Your task to perform on an android device: change alarm snooze length Image 0: 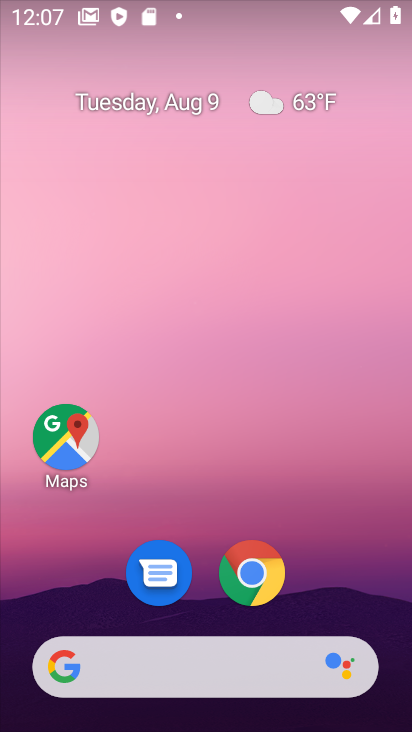
Step 0: drag from (210, 638) to (271, 201)
Your task to perform on an android device: change alarm snooze length Image 1: 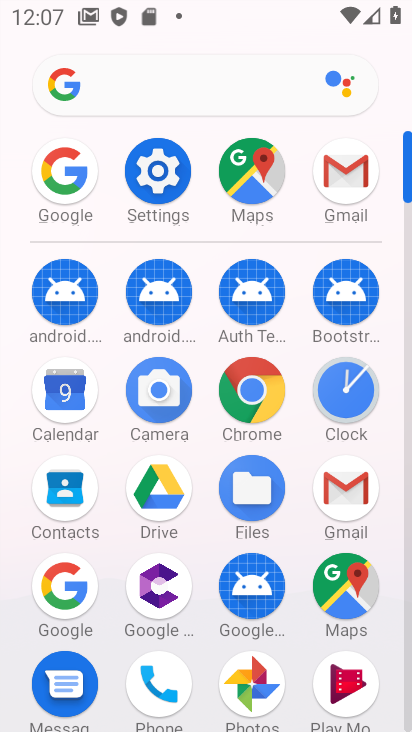
Step 1: click (337, 388)
Your task to perform on an android device: change alarm snooze length Image 2: 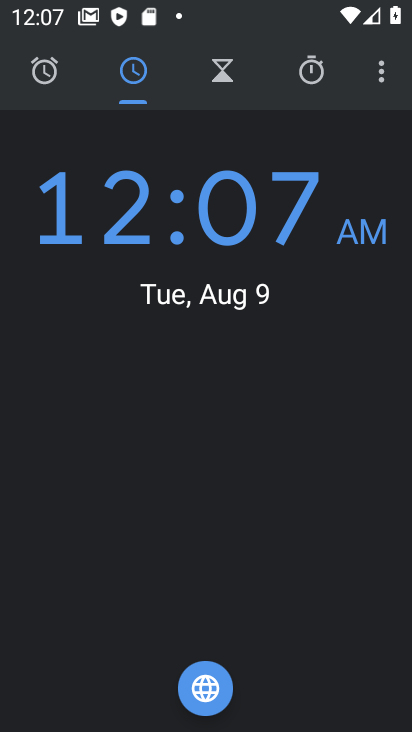
Step 2: click (384, 77)
Your task to perform on an android device: change alarm snooze length Image 3: 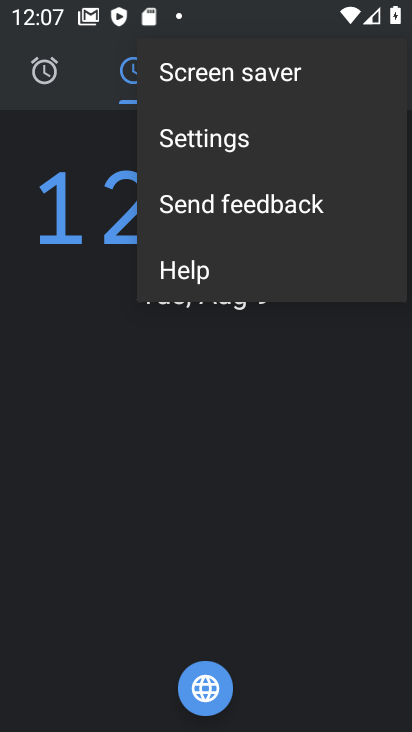
Step 3: click (192, 142)
Your task to perform on an android device: change alarm snooze length Image 4: 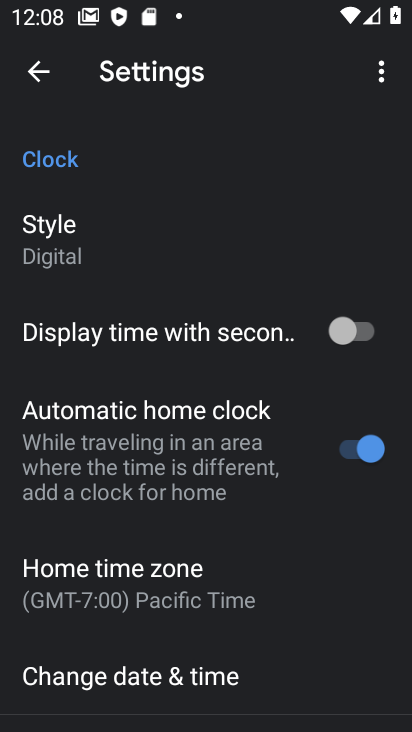
Step 4: drag from (107, 634) to (107, 352)
Your task to perform on an android device: change alarm snooze length Image 5: 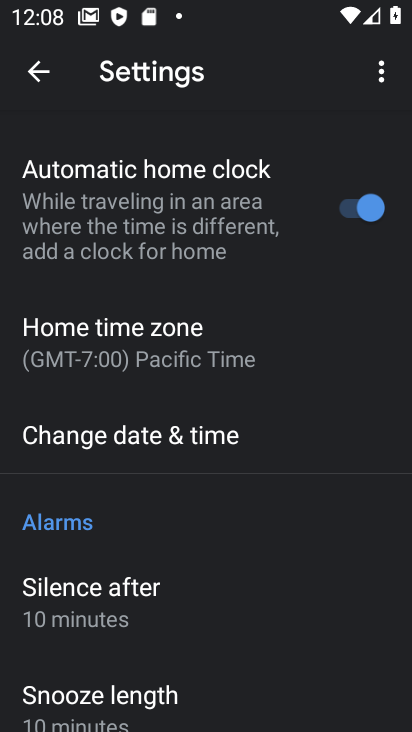
Step 5: drag from (94, 663) to (107, 430)
Your task to perform on an android device: change alarm snooze length Image 6: 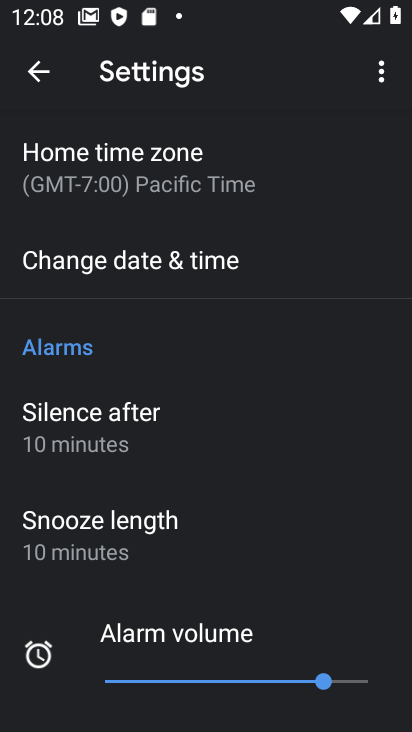
Step 6: click (96, 541)
Your task to perform on an android device: change alarm snooze length Image 7: 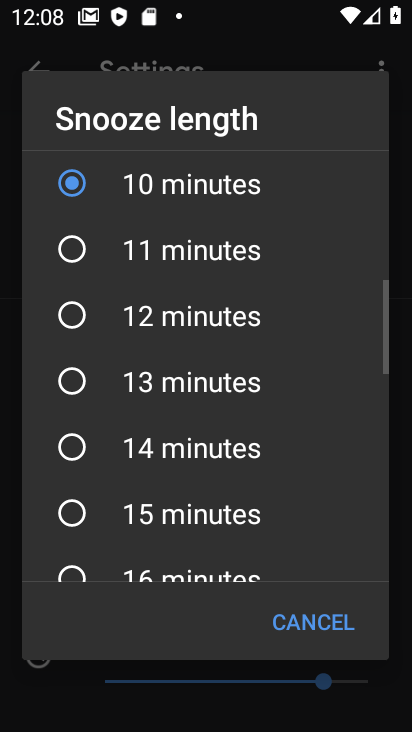
Step 7: click (159, 377)
Your task to perform on an android device: change alarm snooze length Image 8: 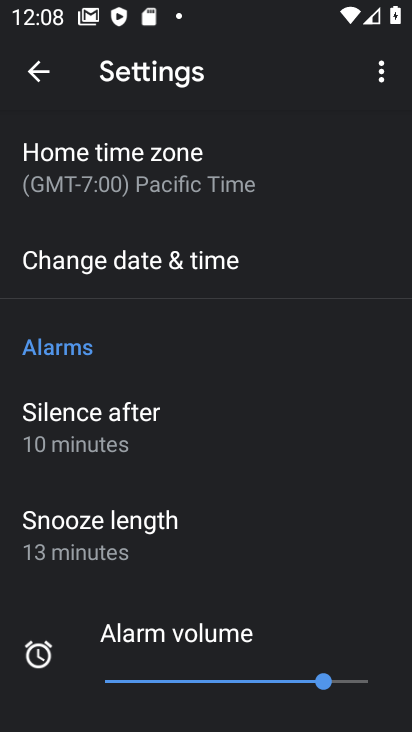
Step 8: task complete